Your task to perform on an android device: What is the recent news? Image 0: 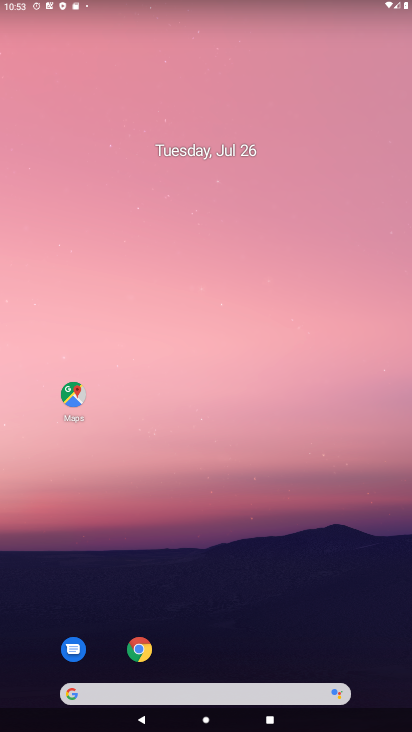
Step 0: drag from (181, 635) to (207, 219)
Your task to perform on an android device: What is the recent news? Image 1: 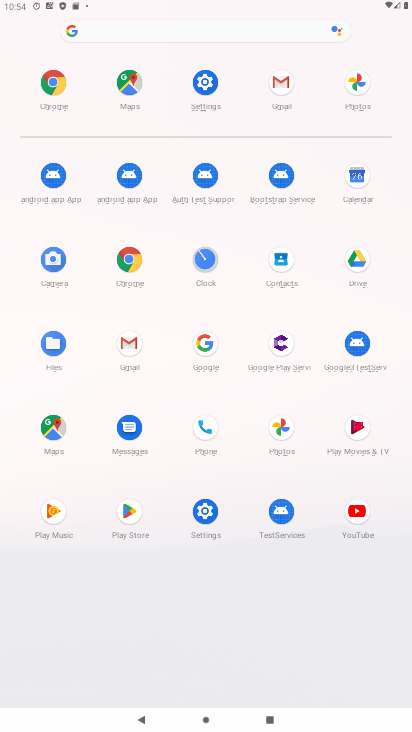
Step 1: click (171, 23)
Your task to perform on an android device: What is the recent news? Image 2: 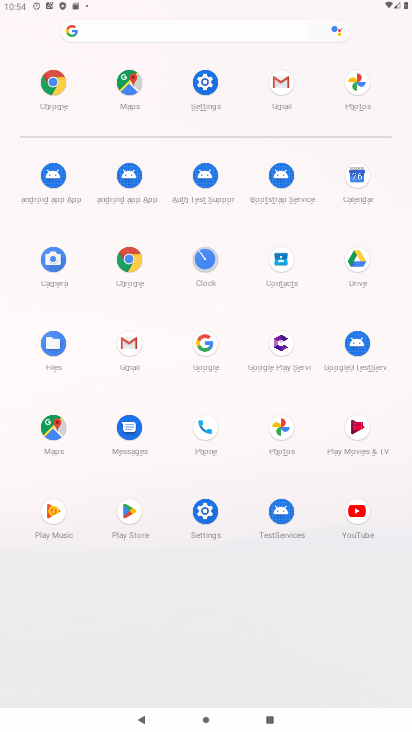
Step 2: click (170, 24)
Your task to perform on an android device: What is the recent news? Image 3: 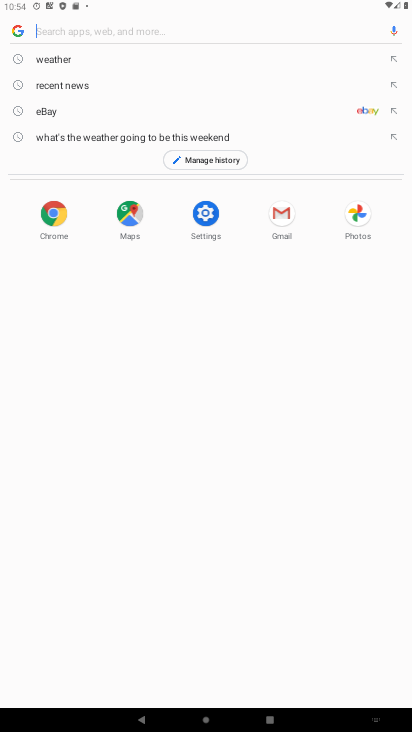
Step 3: click (80, 87)
Your task to perform on an android device: What is the recent news? Image 4: 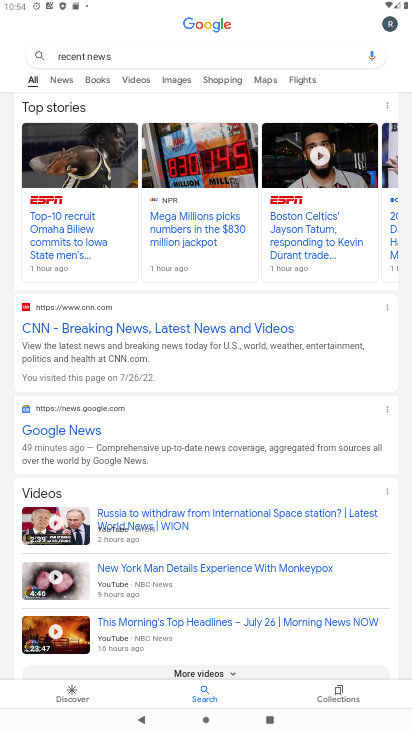
Step 4: click (58, 336)
Your task to perform on an android device: What is the recent news? Image 5: 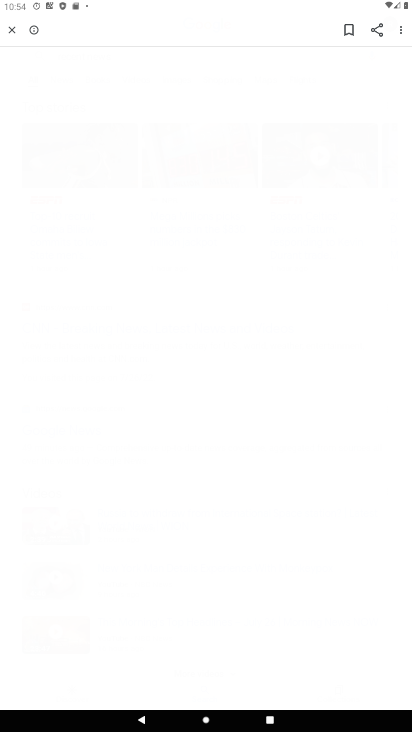
Step 5: task complete